Your task to perform on an android device: Open the calendar app, open the side menu, and click the "Day" option Image 0: 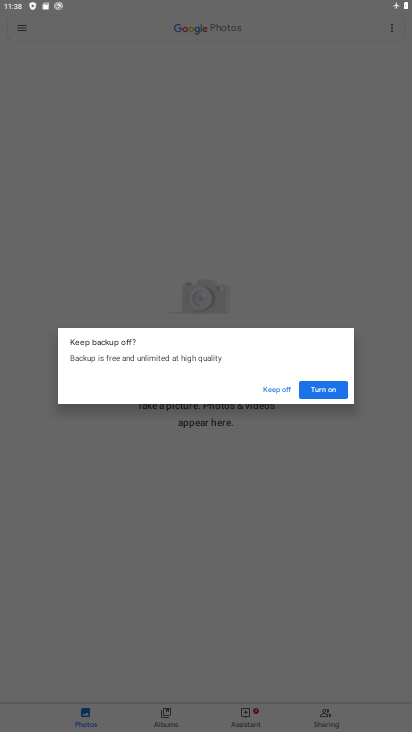
Step 0: drag from (216, 606) to (370, 386)
Your task to perform on an android device: Open the calendar app, open the side menu, and click the "Day" option Image 1: 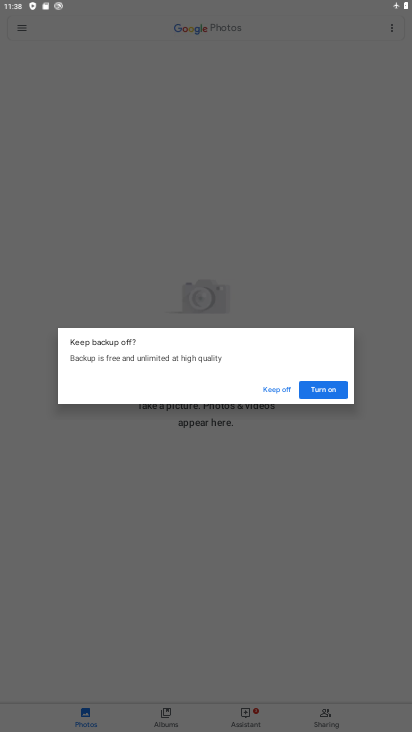
Step 1: press home button
Your task to perform on an android device: Open the calendar app, open the side menu, and click the "Day" option Image 2: 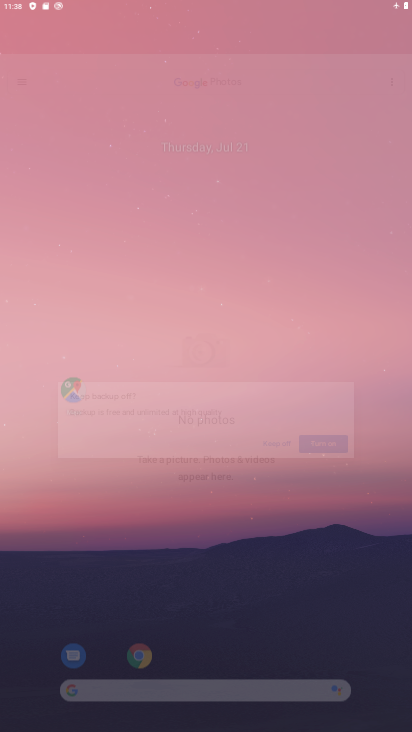
Step 2: drag from (219, 433) to (244, 112)
Your task to perform on an android device: Open the calendar app, open the side menu, and click the "Day" option Image 3: 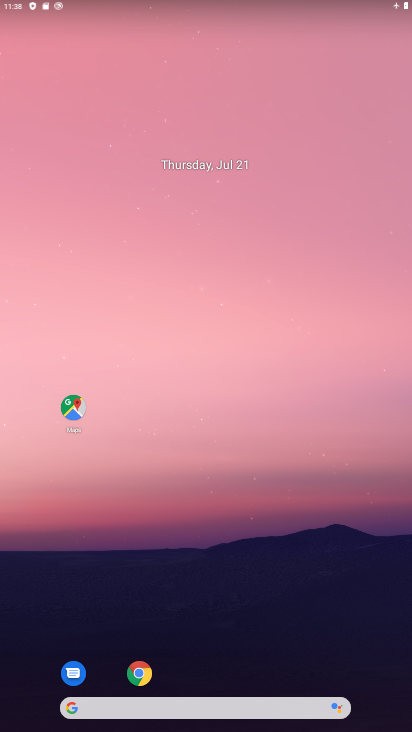
Step 3: drag from (195, 566) to (211, 71)
Your task to perform on an android device: Open the calendar app, open the side menu, and click the "Day" option Image 4: 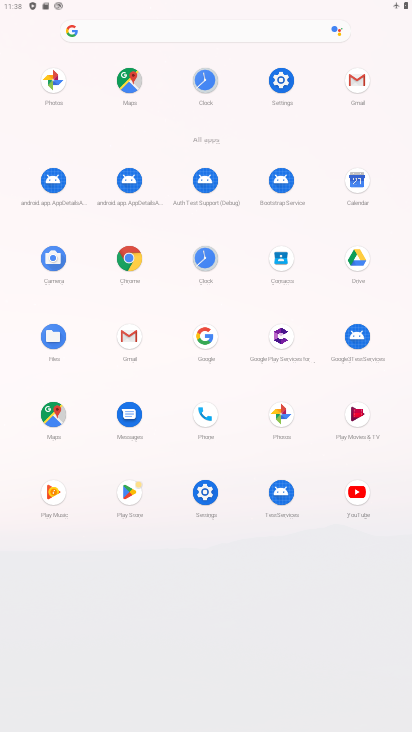
Step 4: click (353, 182)
Your task to perform on an android device: Open the calendar app, open the side menu, and click the "Day" option Image 5: 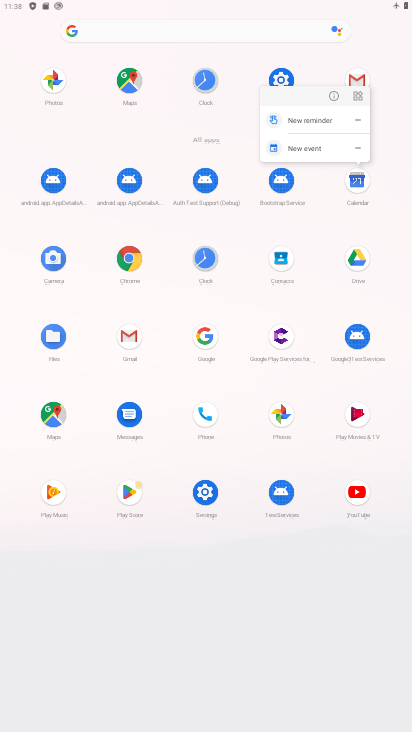
Step 5: click (343, 94)
Your task to perform on an android device: Open the calendar app, open the side menu, and click the "Day" option Image 6: 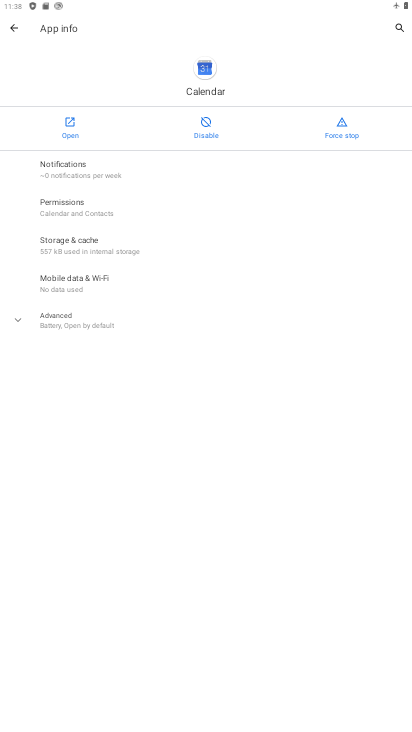
Step 6: click (74, 127)
Your task to perform on an android device: Open the calendar app, open the side menu, and click the "Day" option Image 7: 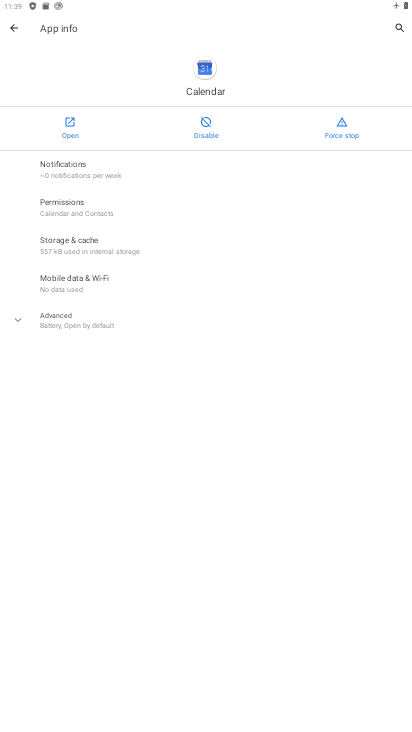
Step 7: click (65, 136)
Your task to perform on an android device: Open the calendar app, open the side menu, and click the "Day" option Image 8: 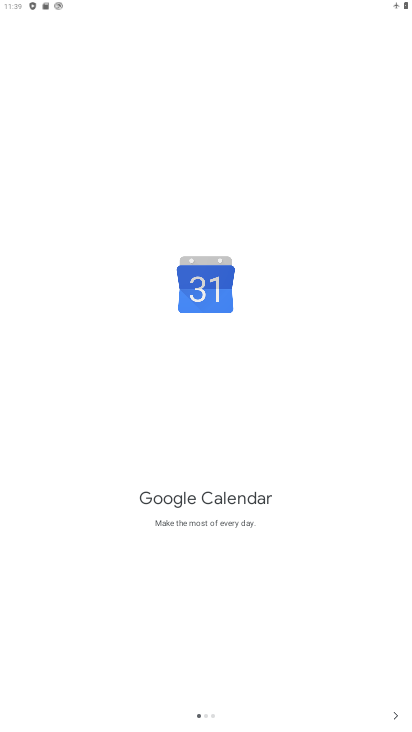
Step 8: click (396, 718)
Your task to perform on an android device: Open the calendar app, open the side menu, and click the "Day" option Image 9: 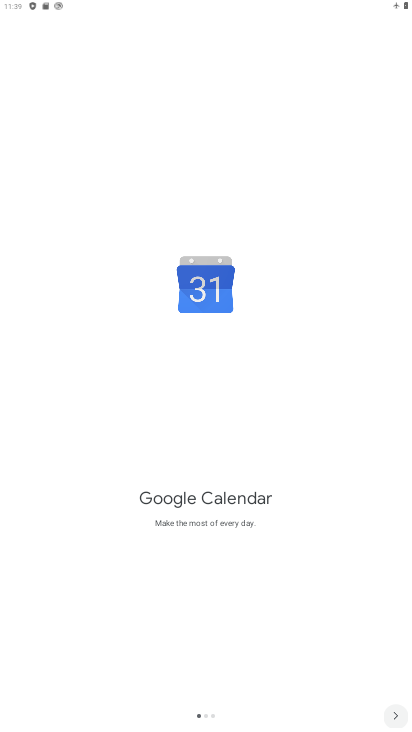
Step 9: click (395, 717)
Your task to perform on an android device: Open the calendar app, open the side menu, and click the "Day" option Image 10: 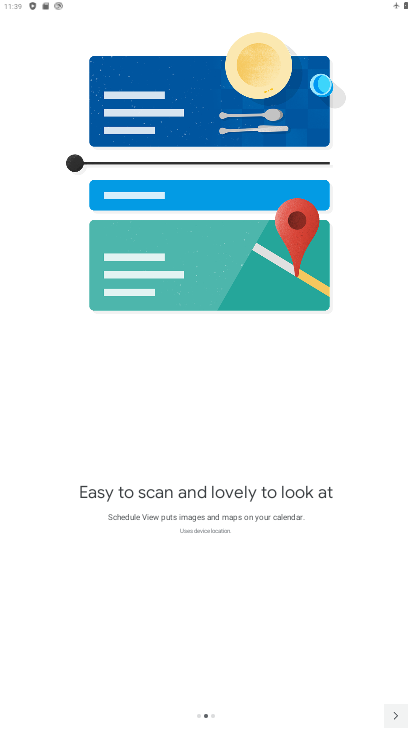
Step 10: click (395, 717)
Your task to perform on an android device: Open the calendar app, open the side menu, and click the "Day" option Image 11: 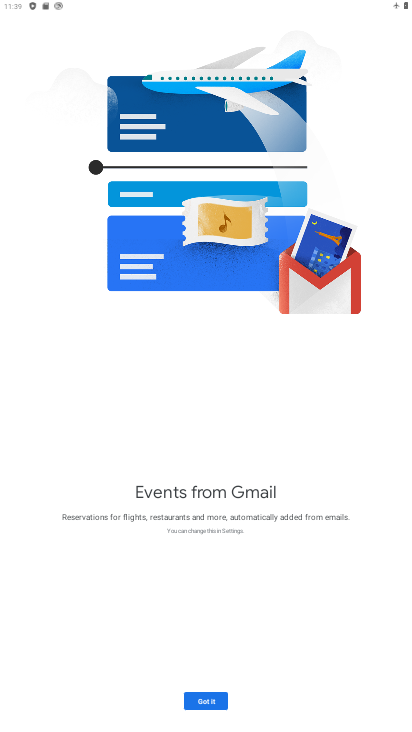
Step 11: click (395, 717)
Your task to perform on an android device: Open the calendar app, open the side menu, and click the "Day" option Image 12: 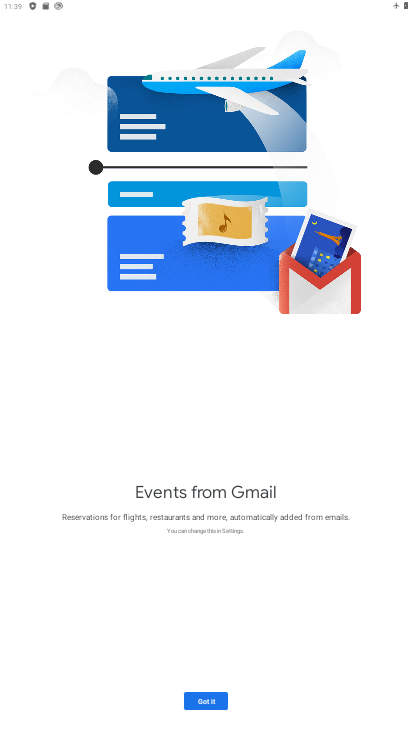
Step 12: click (203, 699)
Your task to perform on an android device: Open the calendar app, open the side menu, and click the "Day" option Image 13: 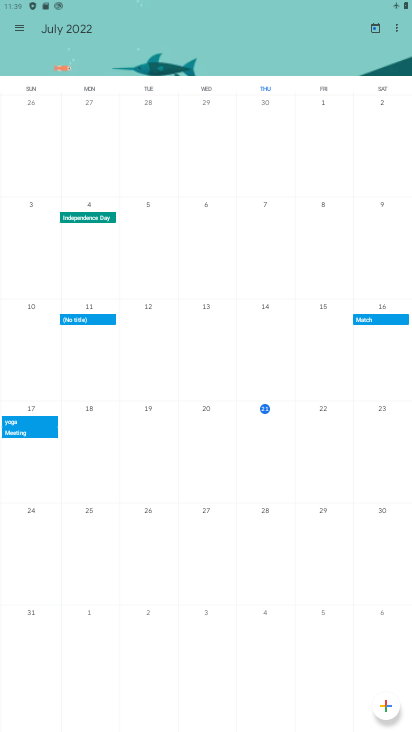
Step 13: click (20, 24)
Your task to perform on an android device: Open the calendar app, open the side menu, and click the "Day" option Image 14: 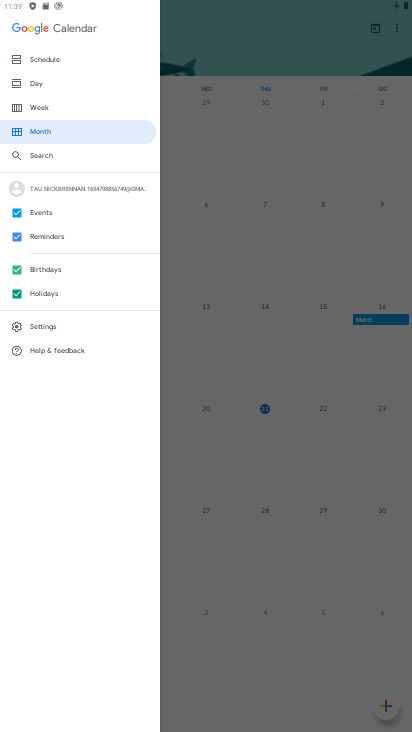
Step 14: click (33, 86)
Your task to perform on an android device: Open the calendar app, open the side menu, and click the "Day" option Image 15: 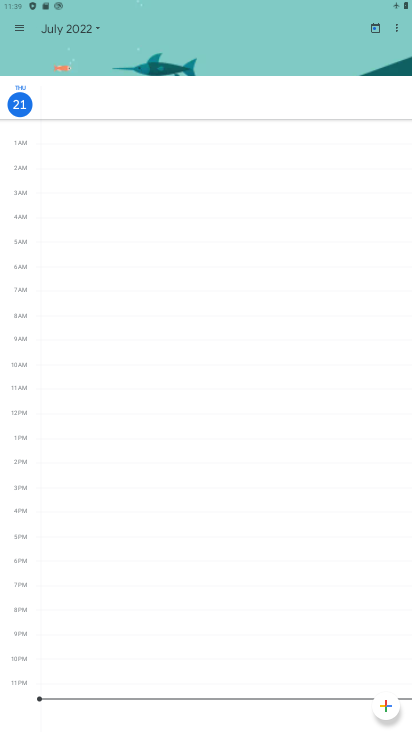
Step 15: task complete